Your task to perform on an android device: Go to network settings Image 0: 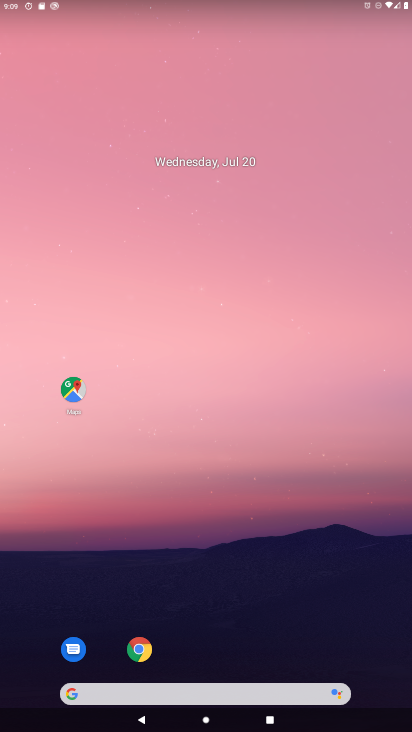
Step 0: drag from (211, 690) to (300, 52)
Your task to perform on an android device: Go to network settings Image 1: 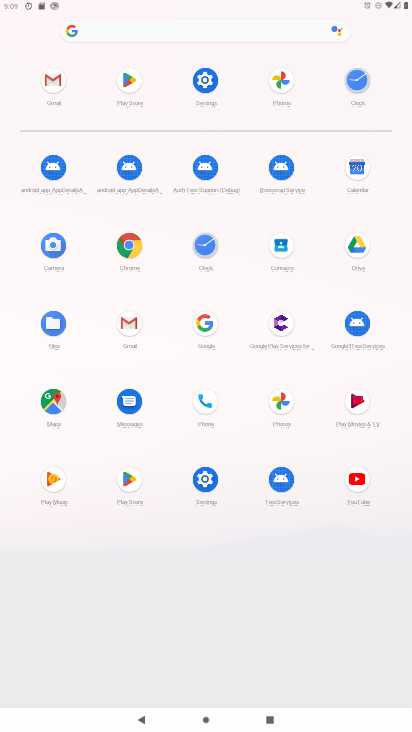
Step 1: click (205, 81)
Your task to perform on an android device: Go to network settings Image 2: 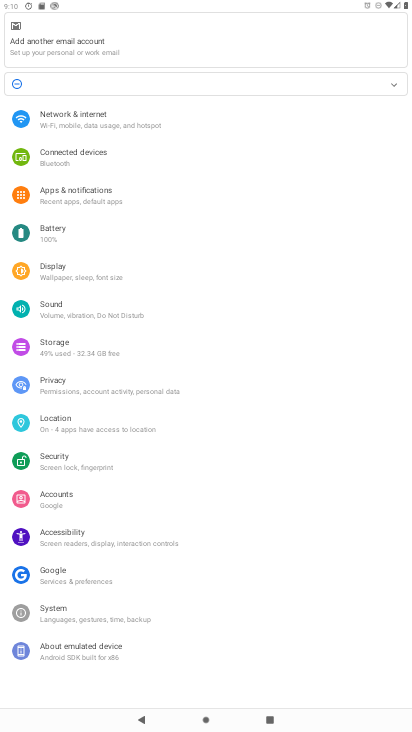
Step 2: click (103, 128)
Your task to perform on an android device: Go to network settings Image 3: 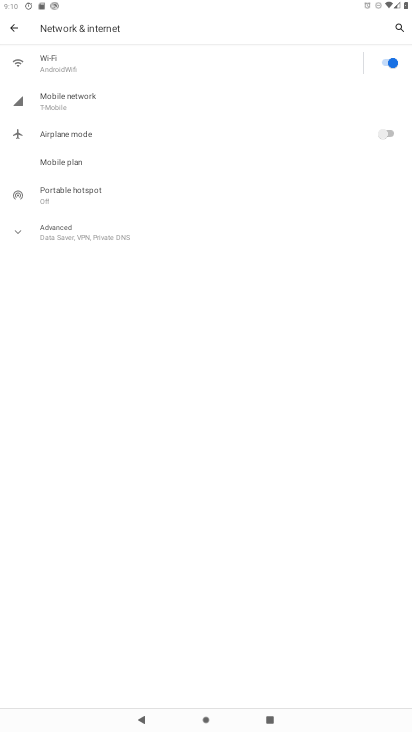
Step 3: task complete